Your task to perform on an android device: toggle translation in the chrome app Image 0: 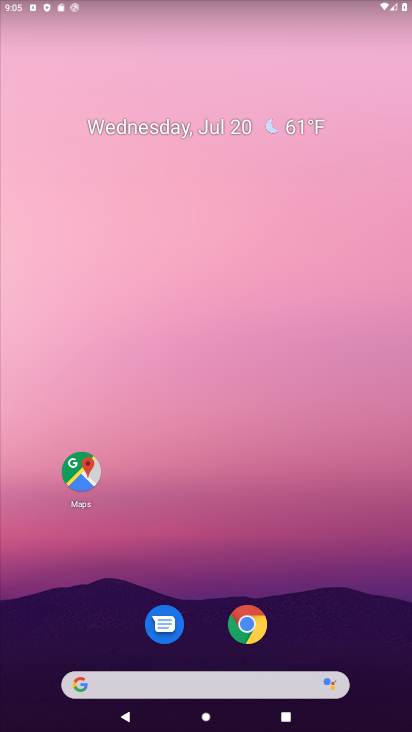
Step 0: click (244, 615)
Your task to perform on an android device: toggle translation in the chrome app Image 1: 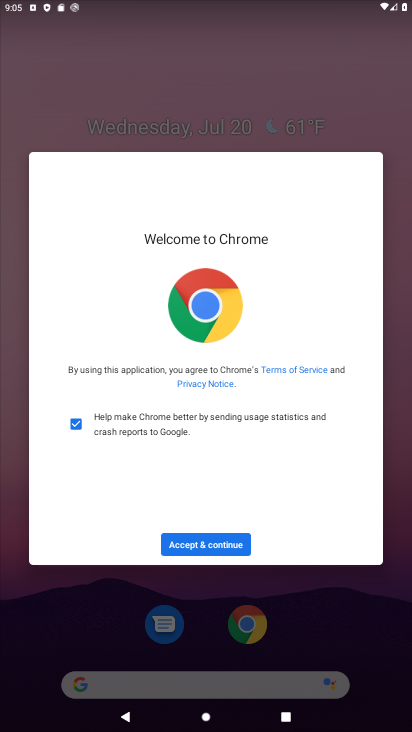
Step 1: click (193, 550)
Your task to perform on an android device: toggle translation in the chrome app Image 2: 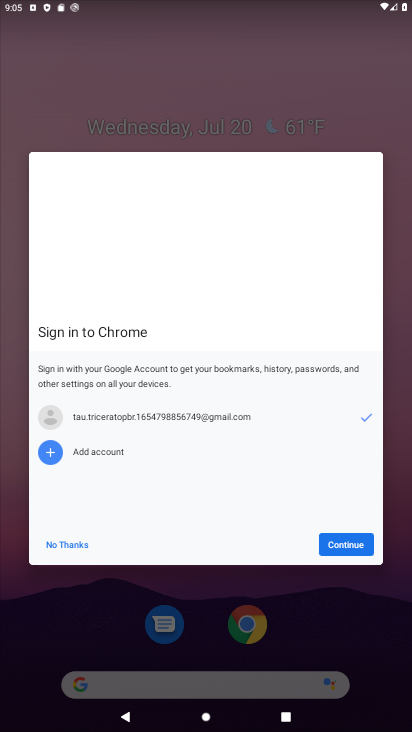
Step 2: click (329, 544)
Your task to perform on an android device: toggle translation in the chrome app Image 3: 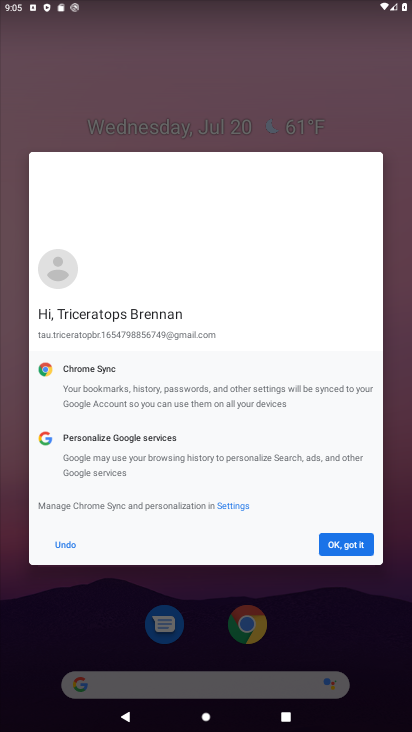
Step 3: click (329, 544)
Your task to perform on an android device: toggle translation in the chrome app Image 4: 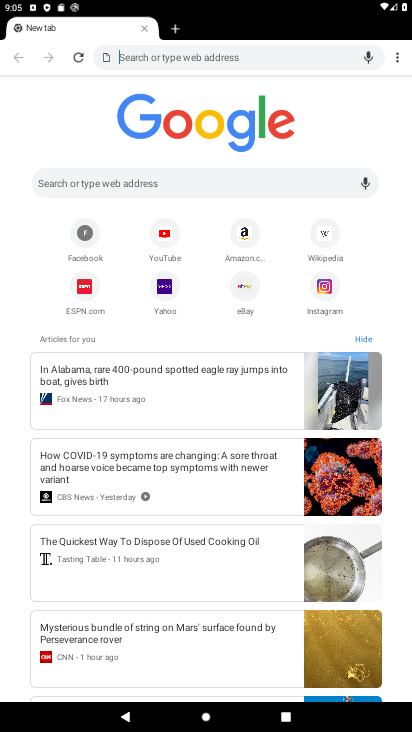
Step 4: click (393, 66)
Your task to perform on an android device: toggle translation in the chrome app Image 5: 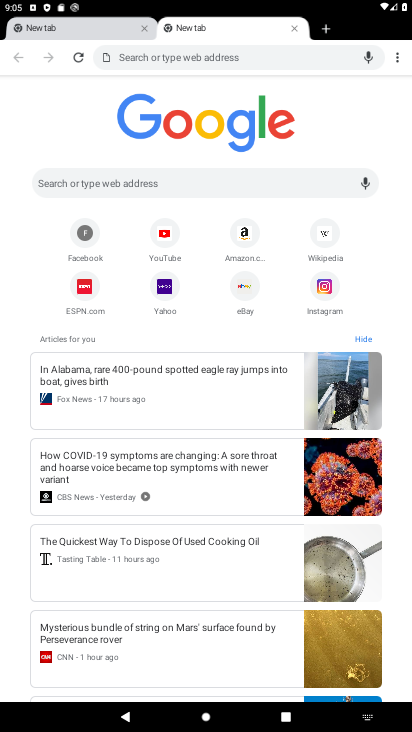
Step 5: drag from (392, 61) to (316, 265)
Your task to perform on an android device: toggle translation in the chrome app Image 6: 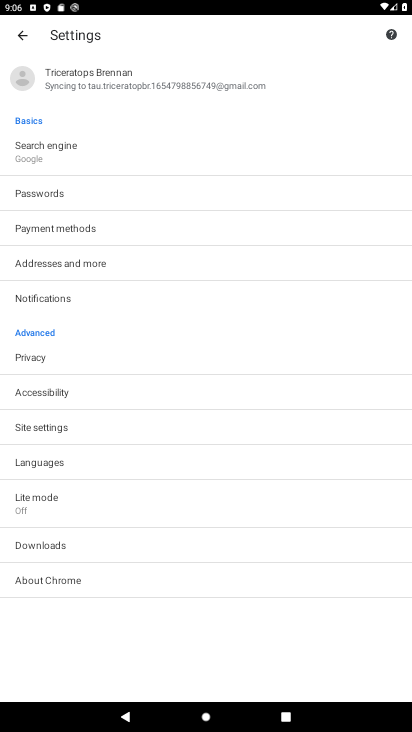
Step 6: click (89, 468)
Your task to perform on an android device: toggle translation in the chrome app Image 7: 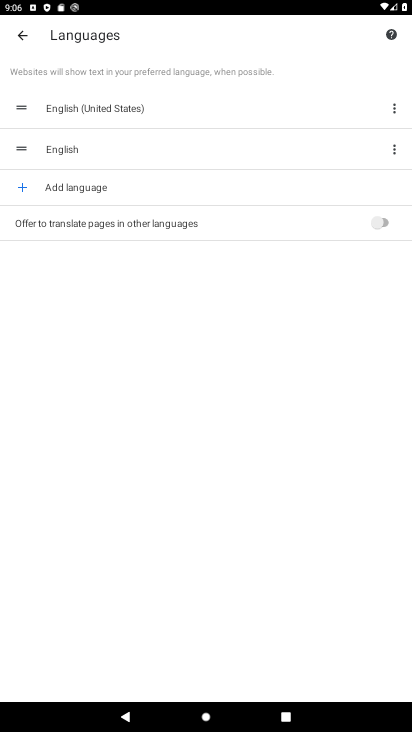
Step 7: task complete